Your task to perform on an android device: turn on showing notifications on the lock screen Image 0: 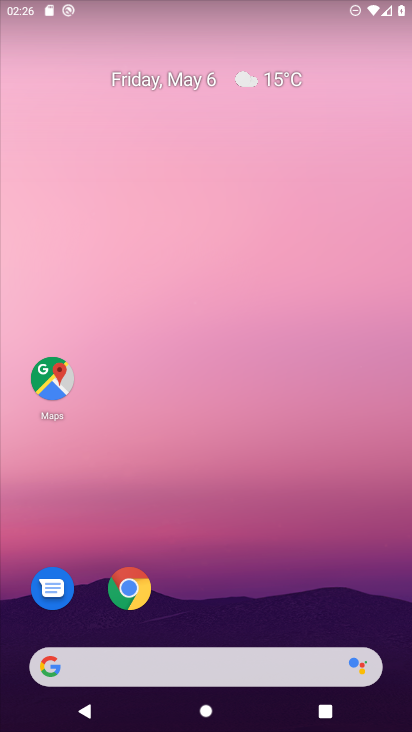
Step 0: drag from (211, 621) to (126, 24)
Your task to perform on an android device: turn on showing notifications on the lock screen Image 1: 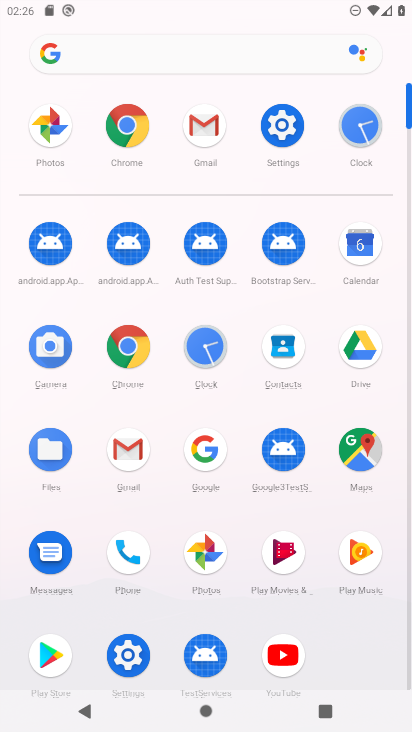
Step 1: click (283, 137)
Your task to perform on an android device: turn on showing notifications on the lock screen Image 2: 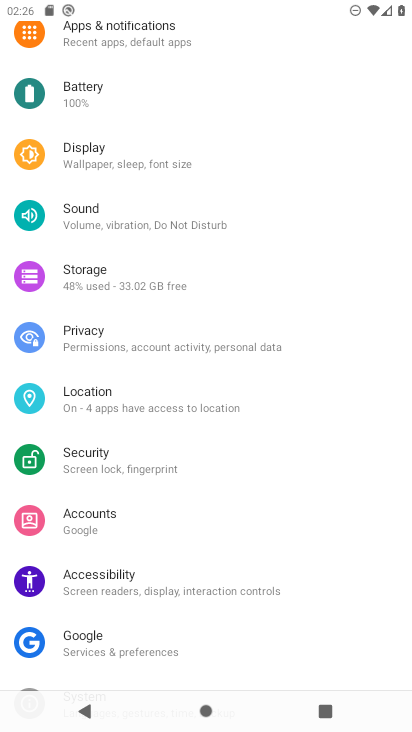
Step 2: click (67, 44)
Your task to perform on an android device: turn on showing notifications on the lock screen Image 3: 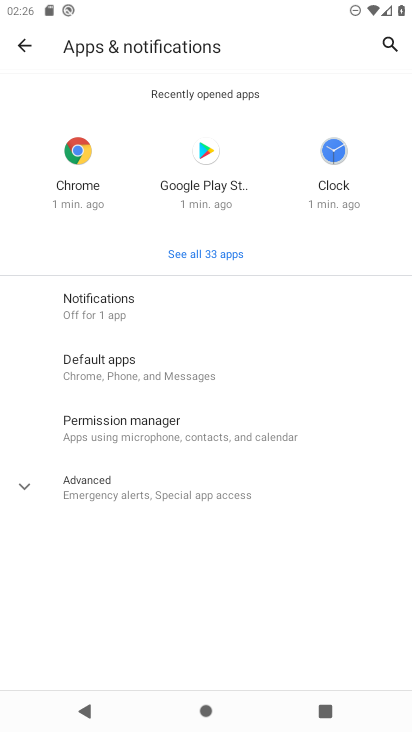
Step 3: click (106, 320)
Your task to perform on an android device: turn on showing notifications on the lock screen Image 4: 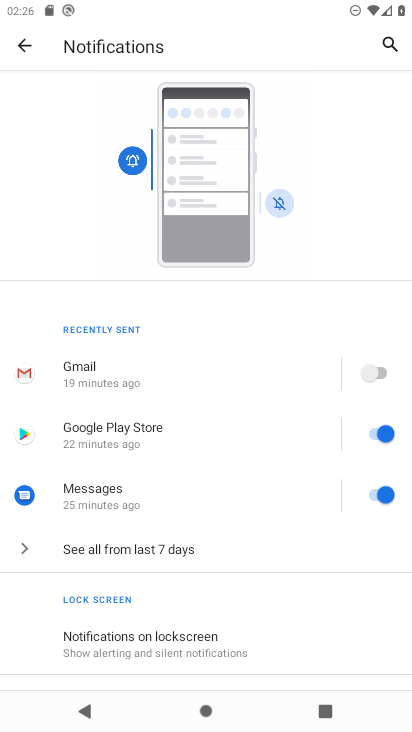
Step 4: click (188, 661)
Your task to perform on an android device: turn on showing notifications on the lock screen Image 5: 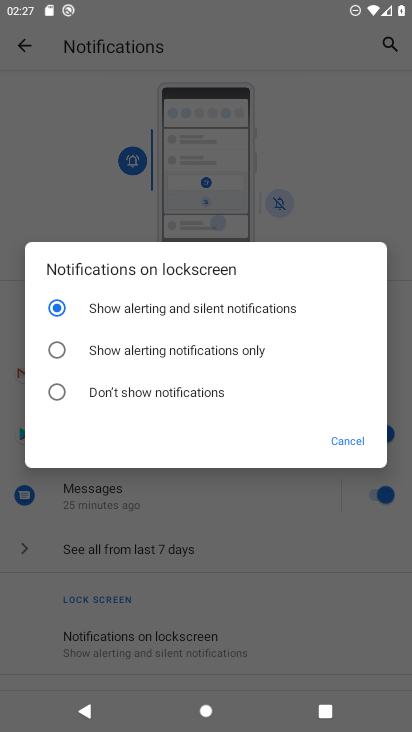
Step 5: click (78, 294)
Your task to perform on an android device: turn on showing notifications on the lock screen Image 6: 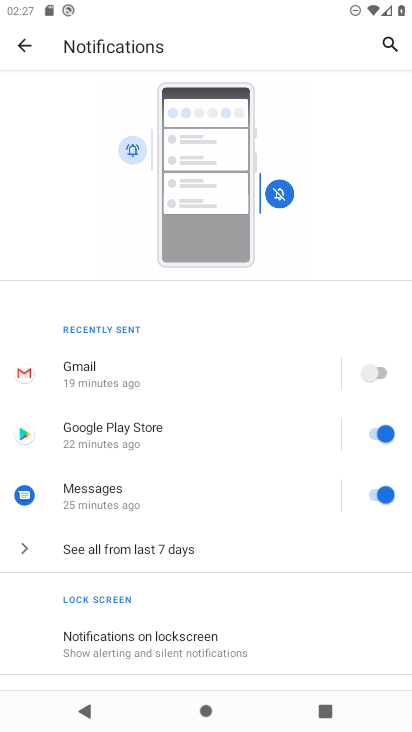
Step 6: task complete